Your task to perform on an android device: Go to Google Image 0: 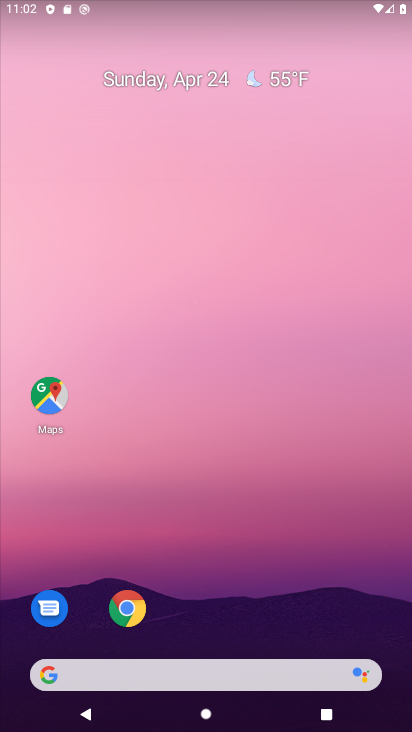
Step 0: drag from (222, 429) to (296, 47)
Your task to perform on an android device: Go to Google Image 1: 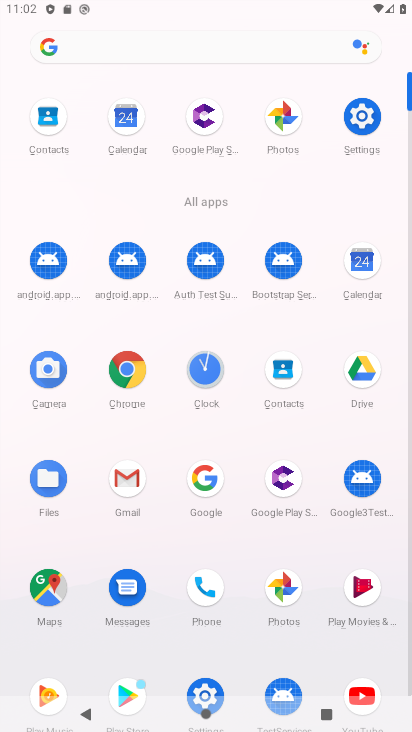
Step 1: click (202, 481)
Your task to perform on an android device: Go to Google Image 2: 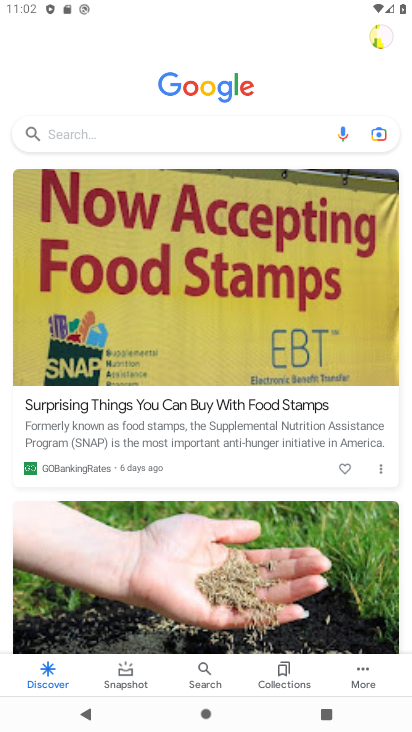
Step 2: task complete